Your task to perform on an android device: change keyboard looks Image 0: 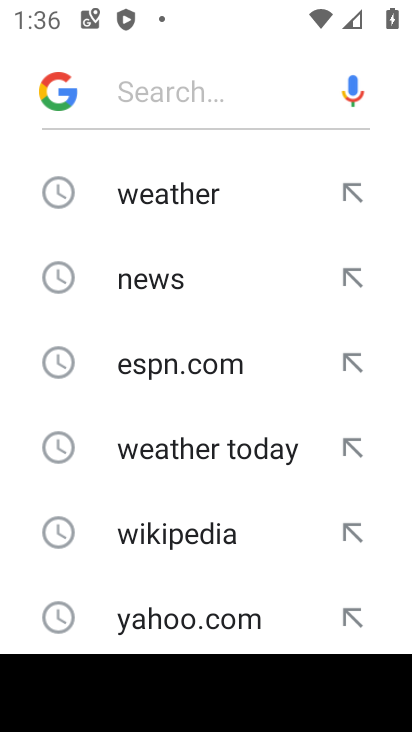
Step 0: press home button
Your task to perform on an android device: change keyboard looks Image 1: 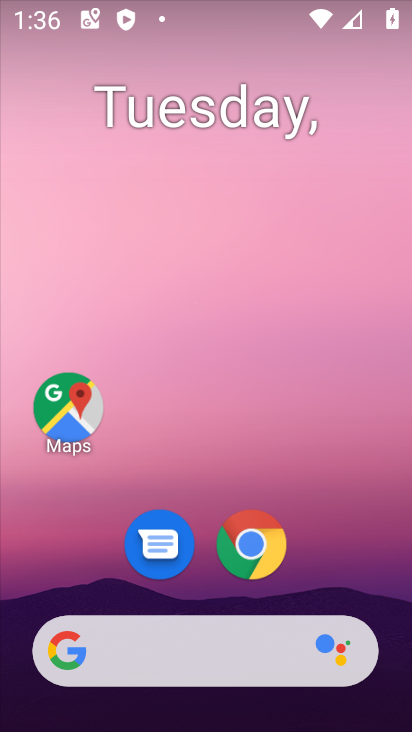
Step 1: drag from (390, 621) to (344, 94)
Your task to perform on an android device: change keyboard looks Image 2: 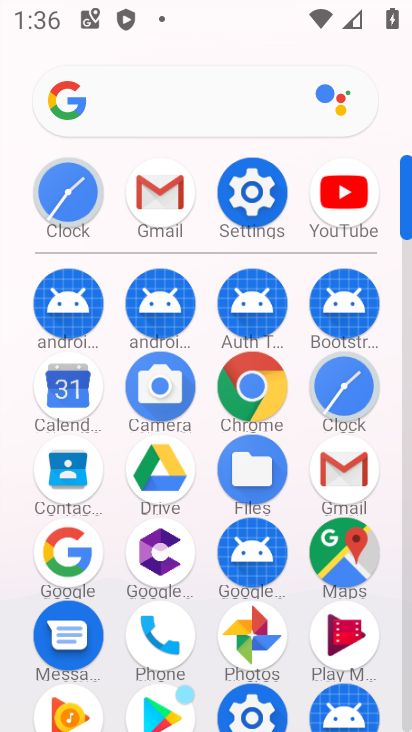
Step 2: click (407, 707)
Your task to perform on an android device: change keyboard looks Image 3: 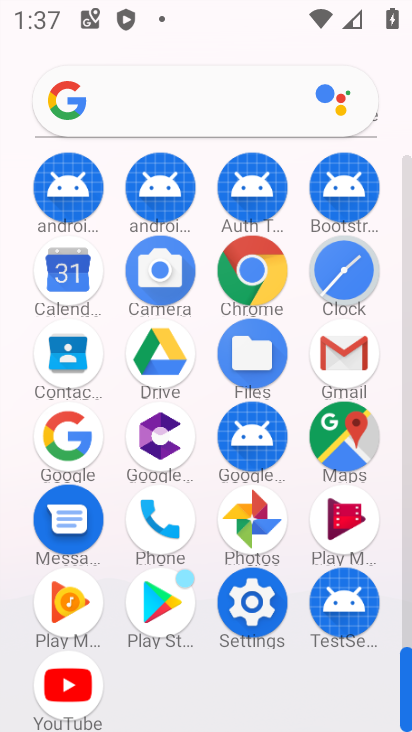
Step 3: click (252, 600)
Your task to perform on an android device: change keyboard looks Image 4: 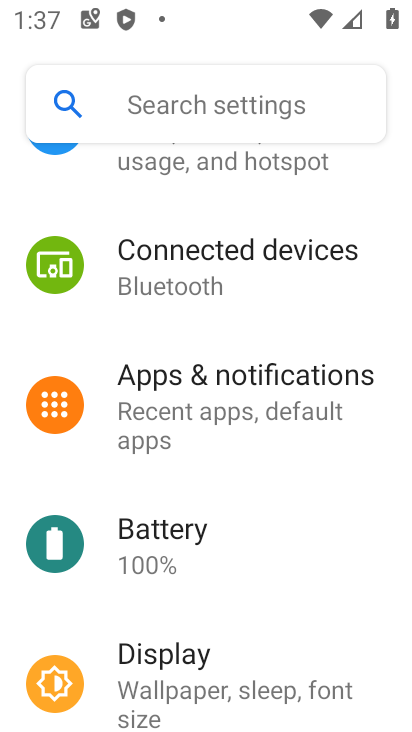
Step 4: drag from (354, 569) to (333, 213)
Your task to perform on an android device: change keyboard looks Image 5: 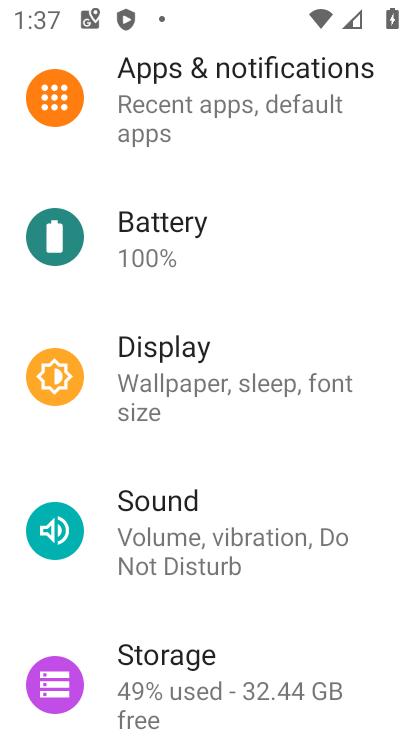
Step 5: drag from (354, 617) to (345, 410)
Your task to perform on an android device: change keyboard looks Image 6: 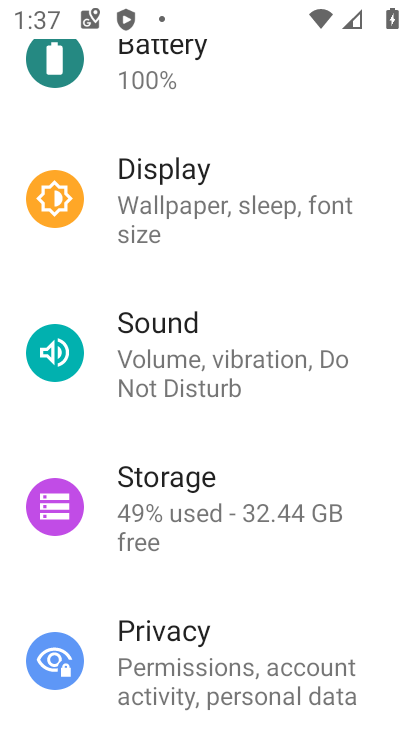
Step 6: drag from (358, 637) to (324, 312)
Your task to perform on an android device: change keyboard looks Image 7: 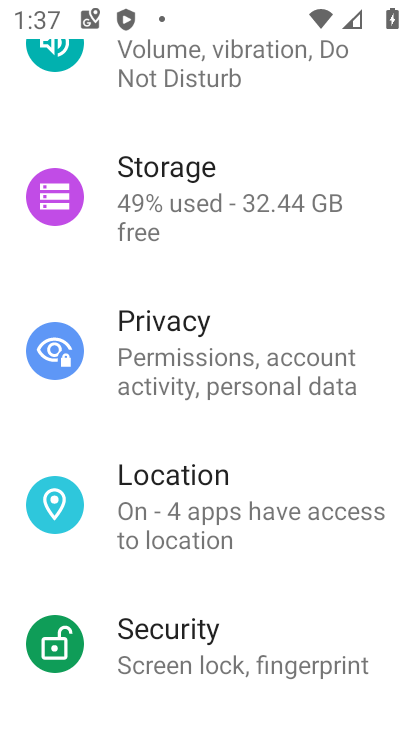
Step 7: drag from (359, 602) to (342, 218)
Your task to perform on an android device: change keyboard looks Image 8: 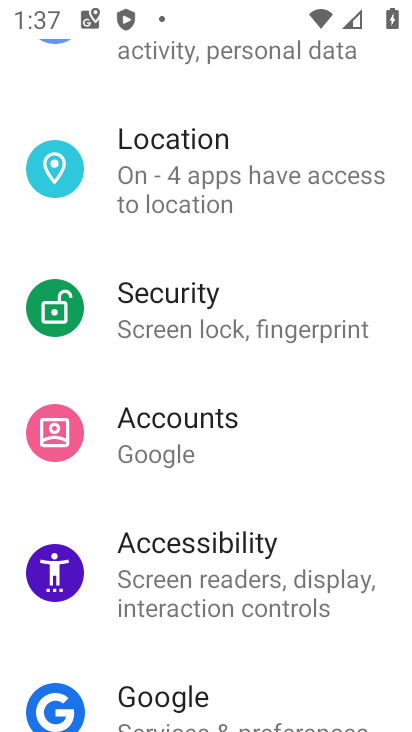
Step 8: drag from (366, 533) to (354, 141)
Your task to perform on an android device: change keyboard looks Image 9: 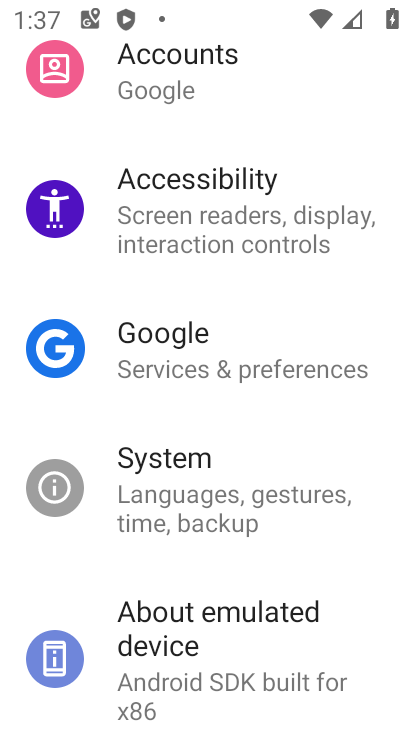
Step 9: click (165, 483)
Your task to perform on an android device: change keyboard looks Image 10: 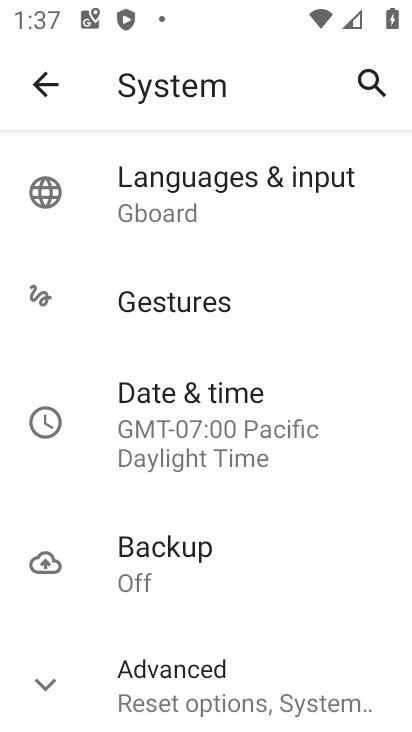
Step 10: click (161, 186)
Your task to perform on an android device: change keyboard looks Image 11: 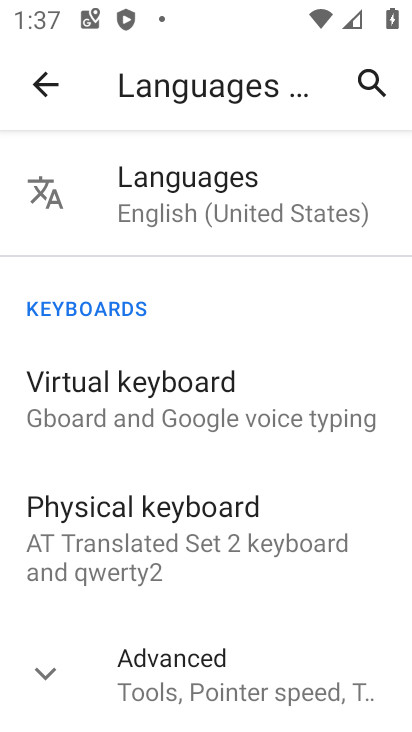
Step 11: click (118, 527)
Your task to perform on an android device: change keyboard looks Image 12: 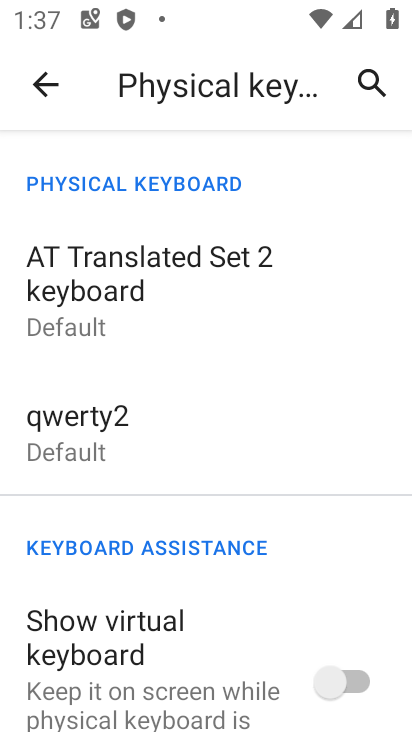
Step 12: click (77, 442)
Your task to perform on an android device: change keyboard looks Image 13: 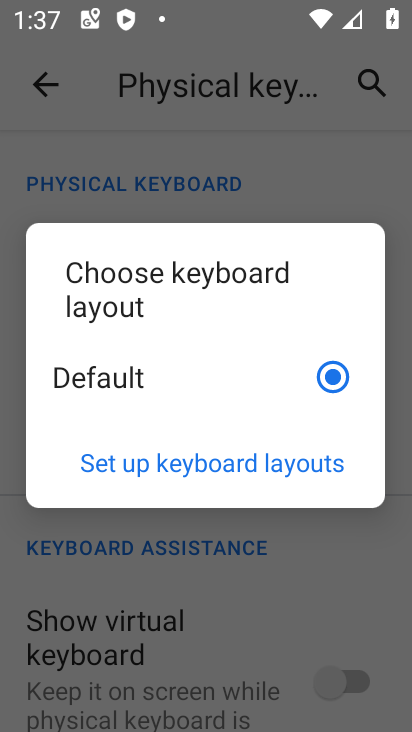
Step 13: click (145, 454)
Your task to perform on an android device: change keyboard looks Image 14: 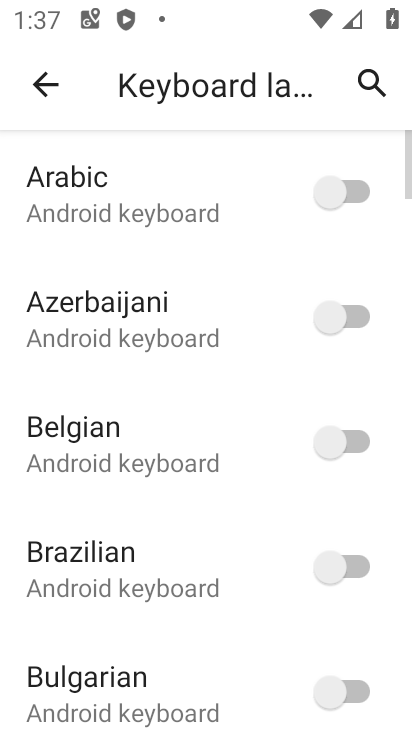
Step 14: drag from (199, 668) to (207, 216)
Your task to perform on an android device: change keyboard looks Image 15: 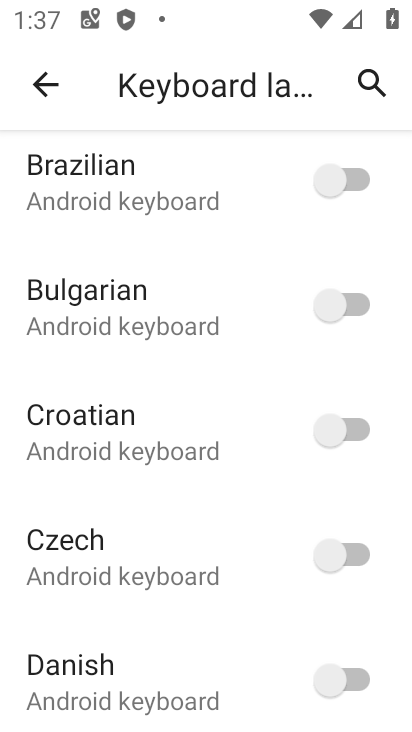
Step 15: drag from (288, 620) to (245, 148)
Your task to perform on an android device: change keyboard looks Image 16: 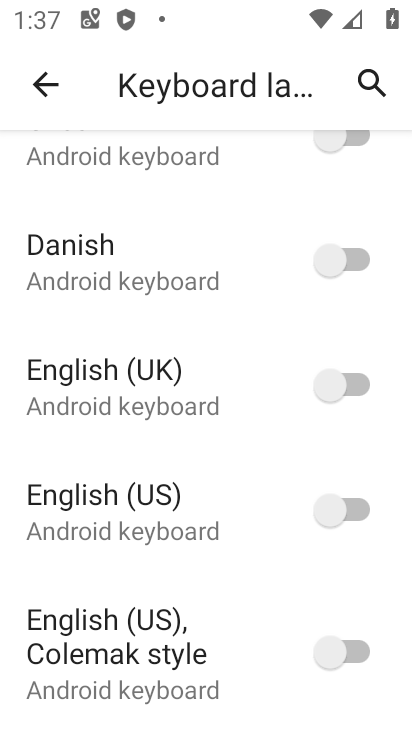
Step 16: click (358, 383)
Your task to perform on an android device: change keyboard looks Image 17: 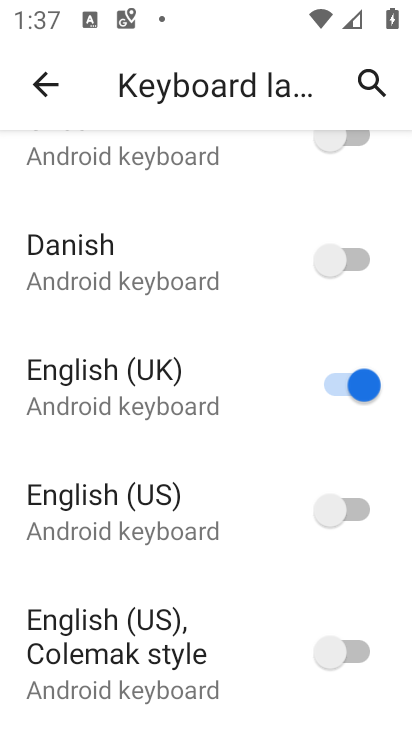
Step 17: task complete